Your task to perform on an android device: change keyboard looks Image 0: 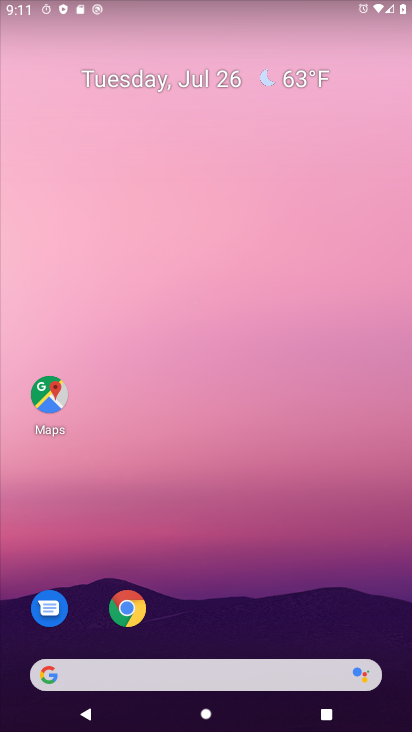
Step 0: drag from (313, 601) to (261, 5)
Your task to perform on an android device: change keyboard looks Image 1: 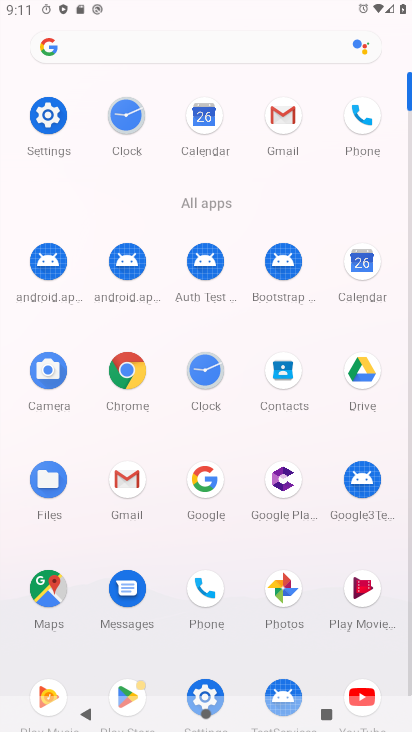
Step 1: click (205, 684)
Your task to perform on an android device: change keyboard looks Image 2: 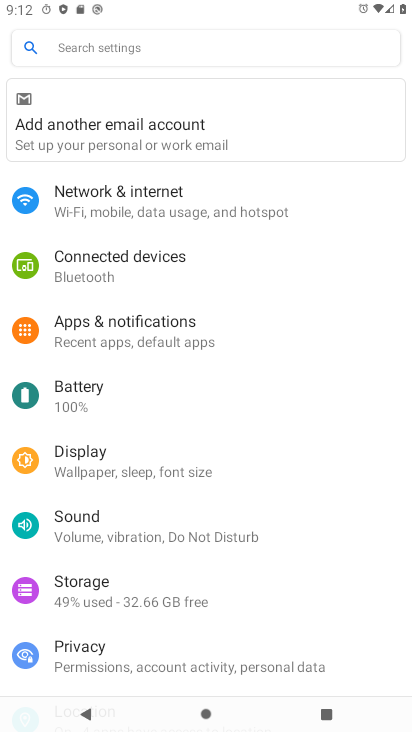
Step 2: drag from (306, 659) to (269, 327)
Your task to perform on an android device: change keyboard looks Image 3: 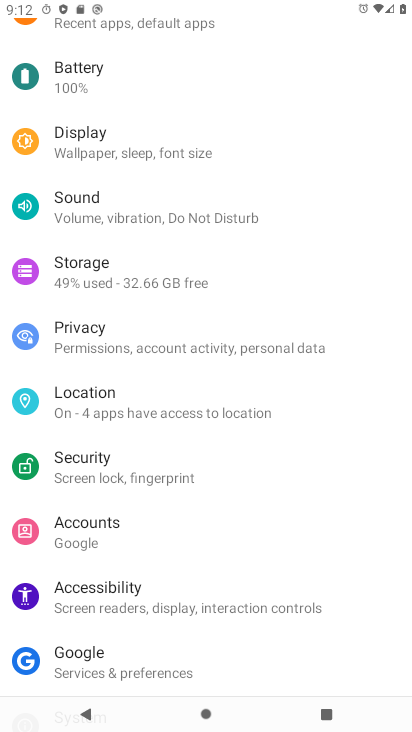
Step 3: drag from (269, 671) to (252, 340)
Your task to perform on an android device: change keyboard looks Image 4: 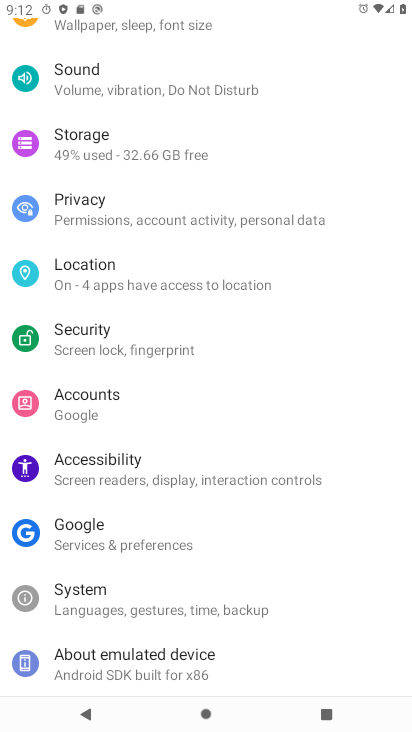
Step 4: drag from (265, 601) to (231, 326)
Your task to perform on an android device: change keyboard looks Image 5: 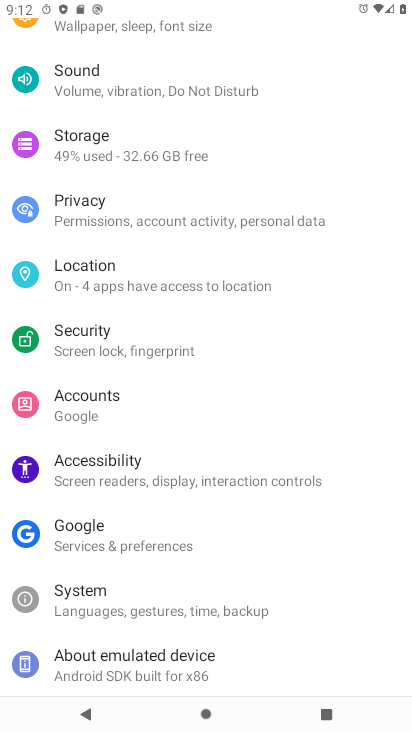
Step 5: click (216, 612)
Your task to perform on an android device: change keyboard looks Image 6: 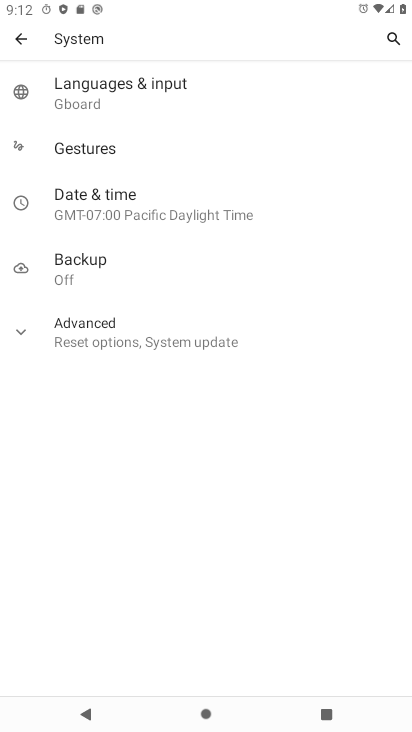
Step 6: click (118, 105)
Your task to perform on an android device: change keyboard looks Image 7: 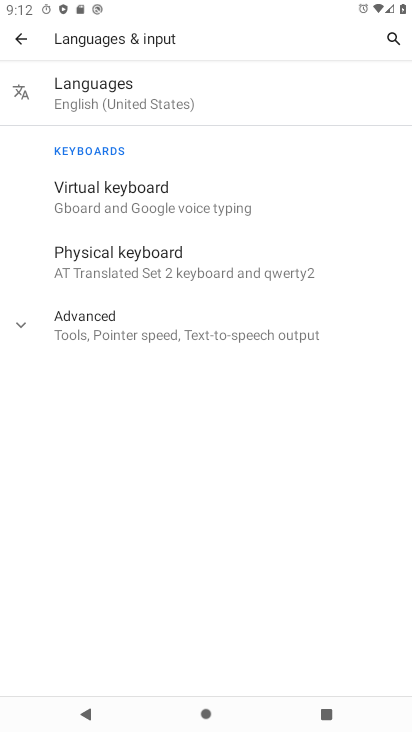
Step 7: click (156, 192)
Your task to perform on an android device: change keyboard looks Image 8: 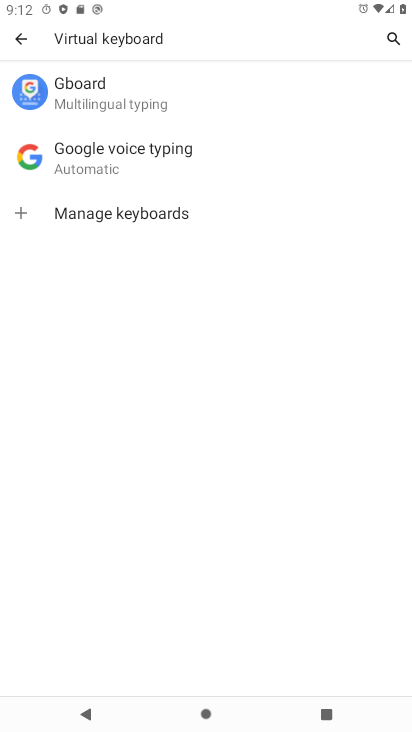
Step 8: click (107, 99)
Your task to perform on an android device: change keyboard looks Image 9: 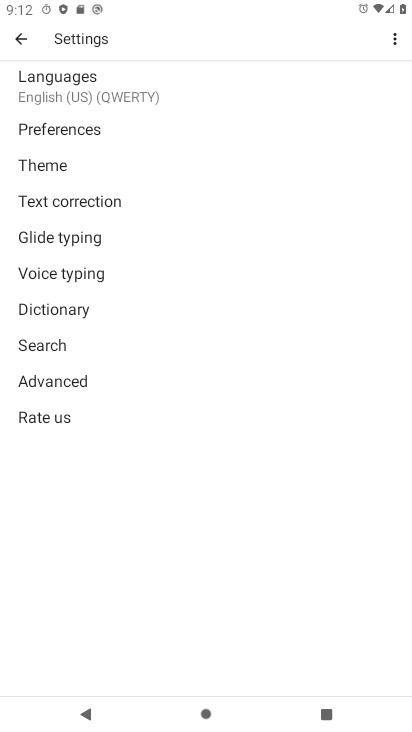
Step 9: click (35, 174)
Your task to perform on an android device: change keyboard looks Image 10: 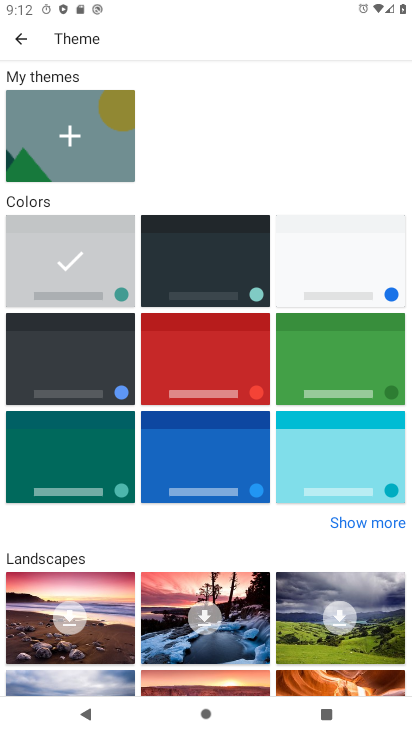
Step 10: click (200, 282)
Your task to perform on an android device: change keyboard looks Image 11: 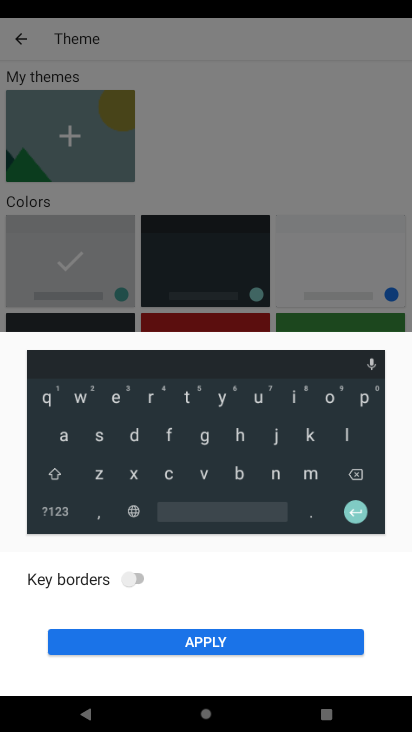
Step 11: click (233, 641)
Your task to perform on an android device: change keyboard looks Image 12: 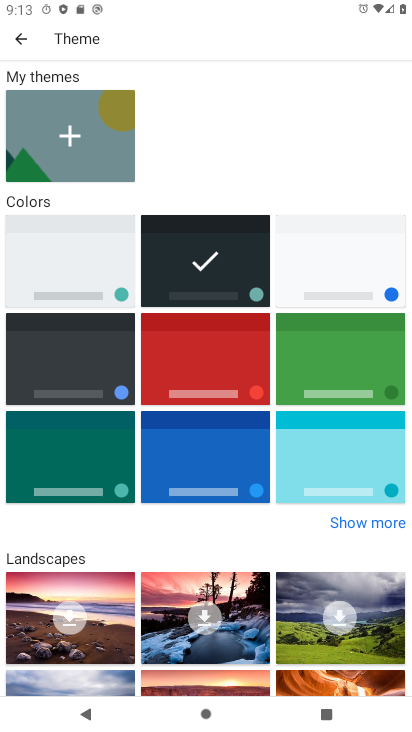
Step 12: task complete